Your task to perform on an android device: all mails in gmail Image 0: 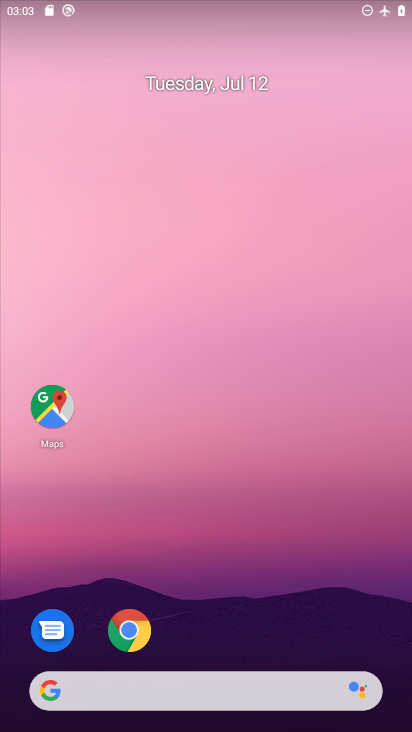
Step 0: drag from (378, 644) to (349, 151)
Your task to perform on an android device: all mails in gmail Image 1: 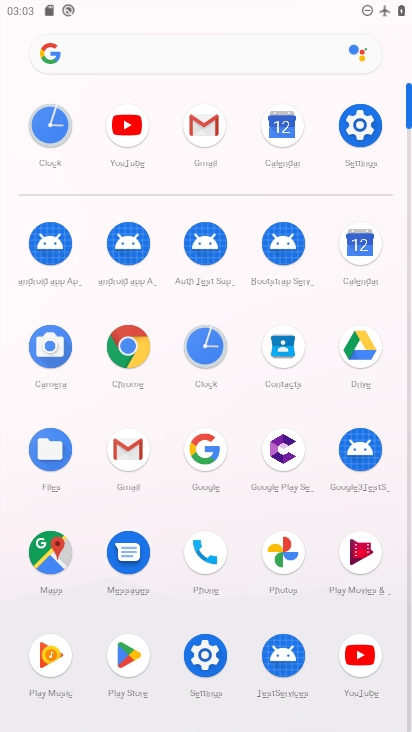
Step 1: click (127, 449)
Your task to perform on an android device: all mails in gmail Image 2: 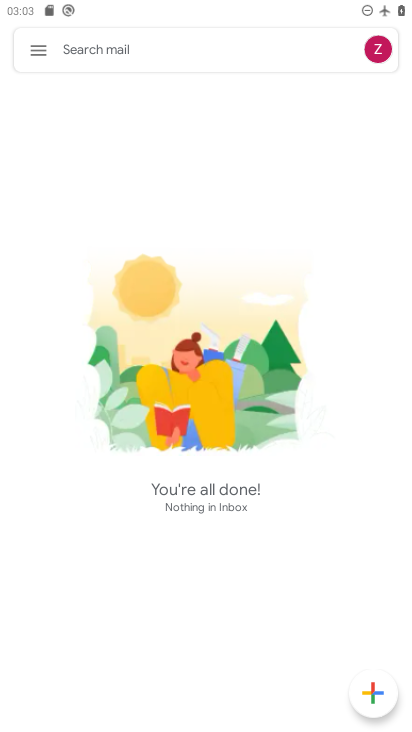
Step 2: click (37, 52)
Your task to perform on an android device: all mails in gmail Image 3: 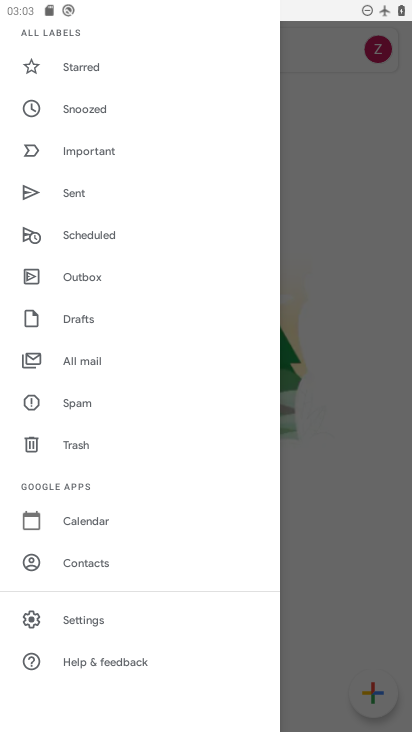
Step 3: drag from (188, 186) to (178, 352)
Your task to perform on an android device: all mails in gmail Image 4: 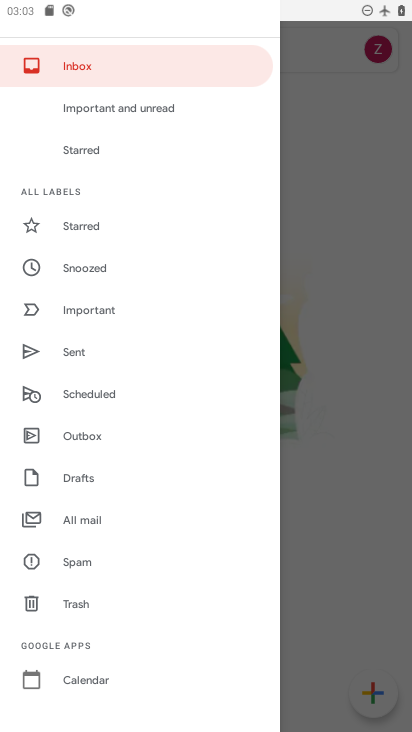
Step 4: click (70, 521)
Your task to perform on an android device: all mails in gmail Image 5: 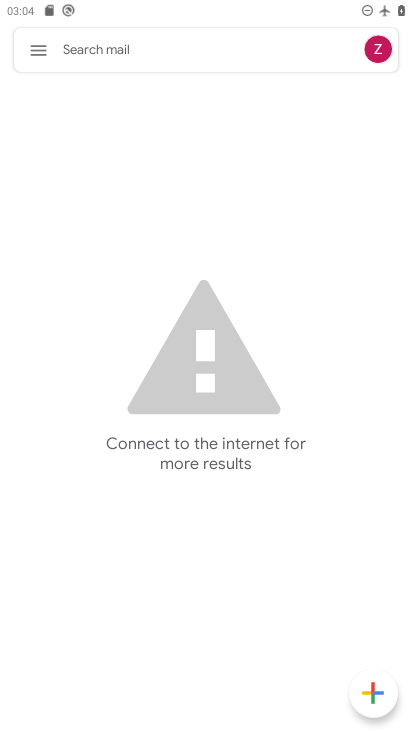
Step 5: task complete